Your task to perform on an android device: Add jbl flip 4 to the cart on target Image 0: 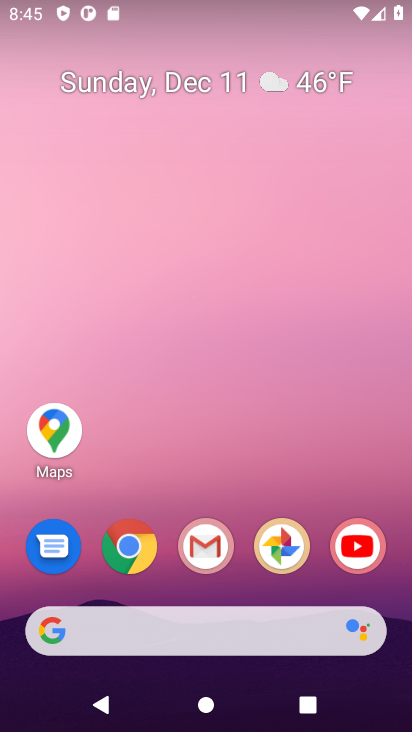
Step 0: click (140, 540)
Your task to perform on an android device: Add jbl flip 4 to the cart on target Image 1: 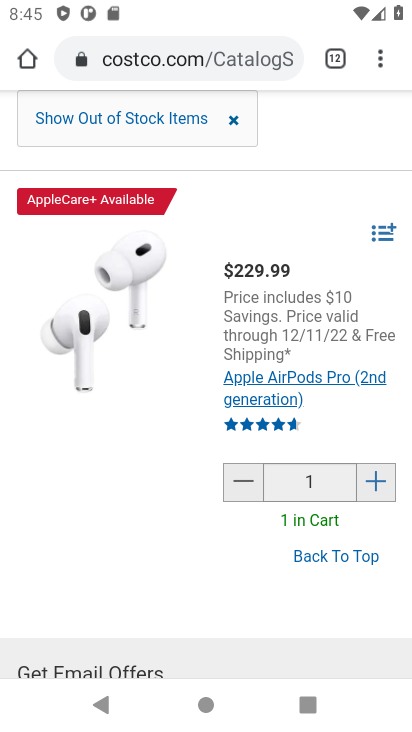
Step 1: click (168, 62)
Your task to perform on an android device: Add jbl flip 4 to the cart on target Image 2: 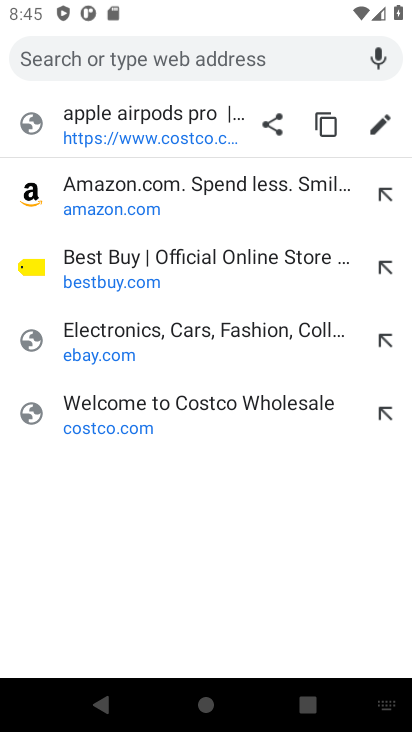
Step 2: type "target.com"
Your task to perform on an android device: Add jbl flip 4 to the cart on target Image 3: 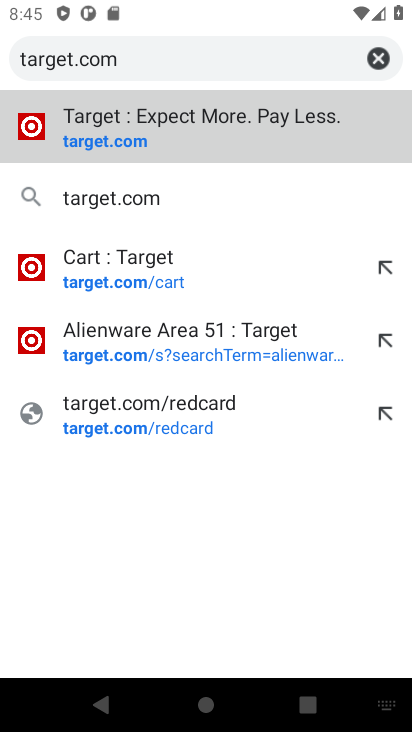
Step 3: click (82, 147)
Your task to perform on an android device: Add jbl flip 4 to the cart on target Image 4: 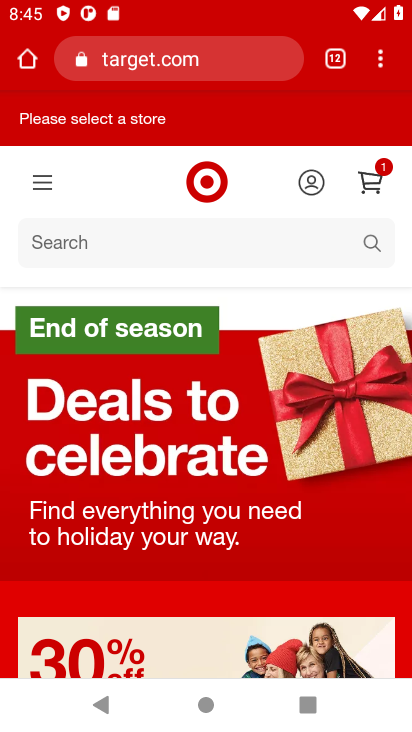
Step 4: click (36, 248)
Your task to perform on an android device: Add jbl flip 4 to the cart on target Image 5: 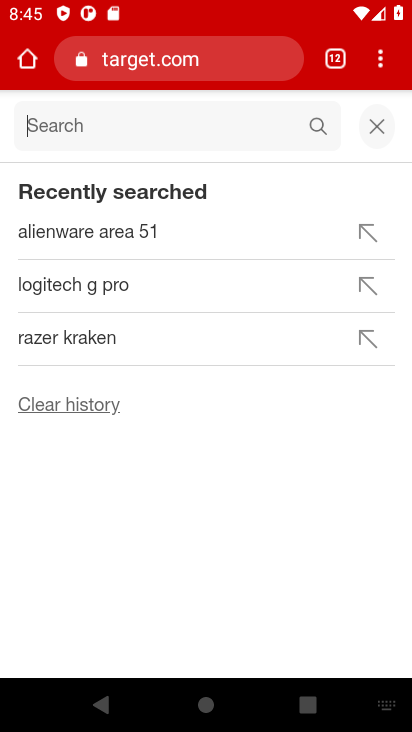
Step 5: type " jbl flip 4"
Your task to perform on an android device: Add jbl flip 4 to the cart on target Image 6: 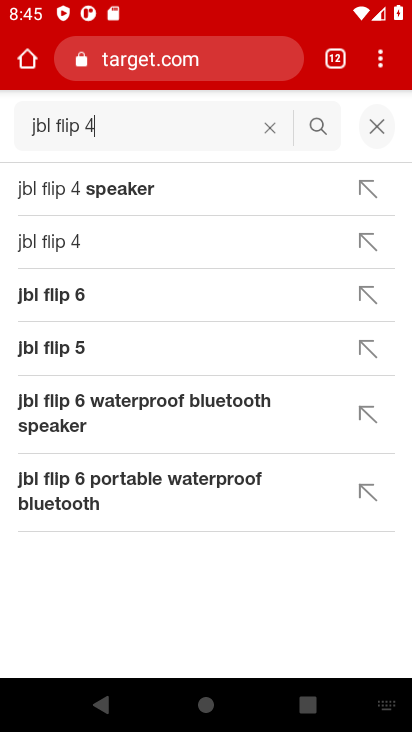
Step 6: click (52, 255)
Your task to perform on an android device: Add jbl flip 4 to the cart on target Image 7: 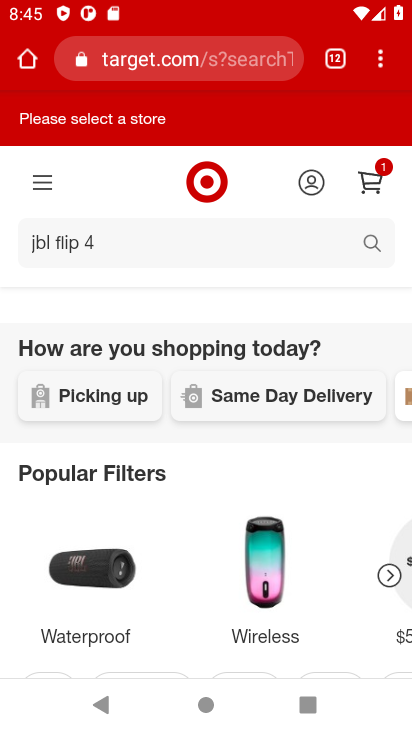
Step 7: drag from (182, 508) to (171, 218)
Your task to perform on an android device: Add jbl flip 4 to the cart on target Image 8: 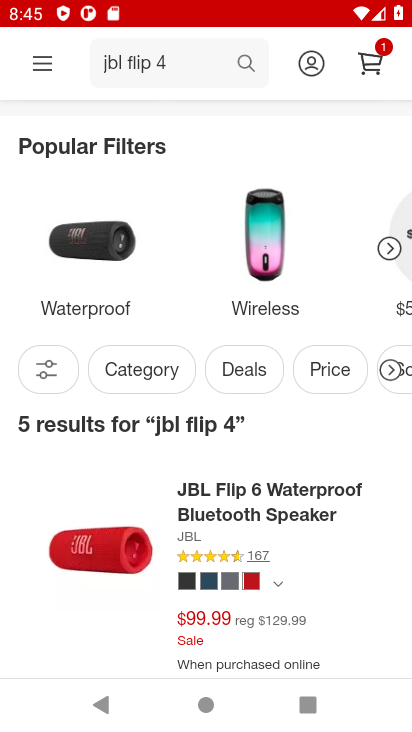
Step 8: click (166, 168)
Your task to perform on an android device: Add jbl flip 4 to the cart on target Image 9: 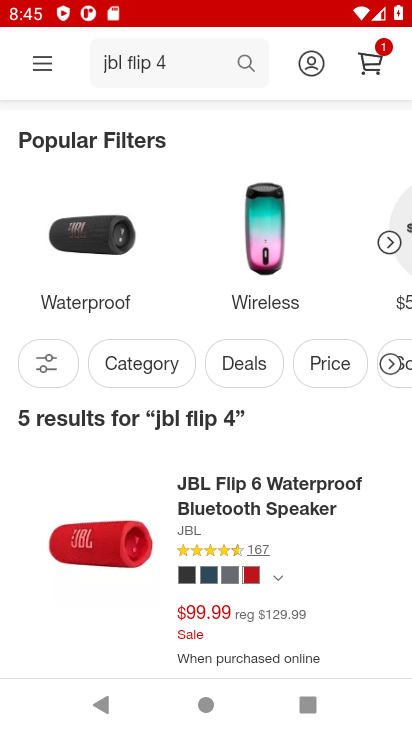
Step 9: task complete